Your task to perform on an android device: make emails show in primary in the gmail app Image 0: 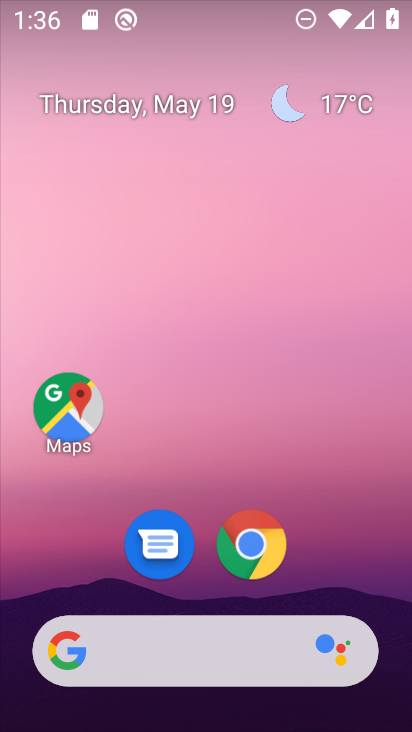
Step 0: drag from (195, 724) to (195, 169)
Your task to perform on an android device: make emails show in primary in the gmail app Image 1: 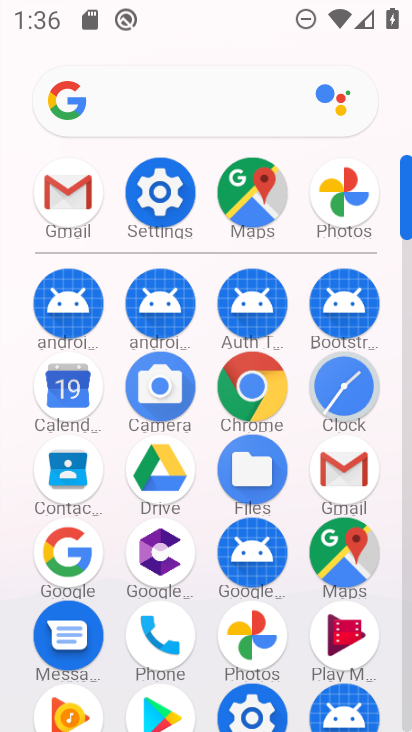
Step 1: click (336, 463)
Your task to perform on an android device: make emails show in primary in the gmail app Image 2: 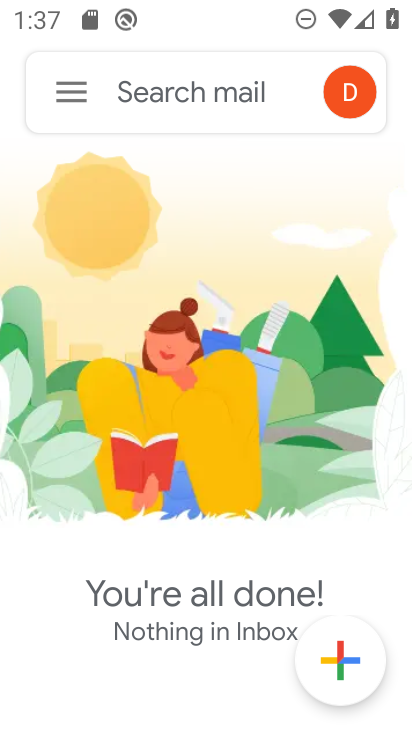
Step 2: click (70, 93)
Your task to perform on an android device: make emails show in primary in the gmail app Image 3: 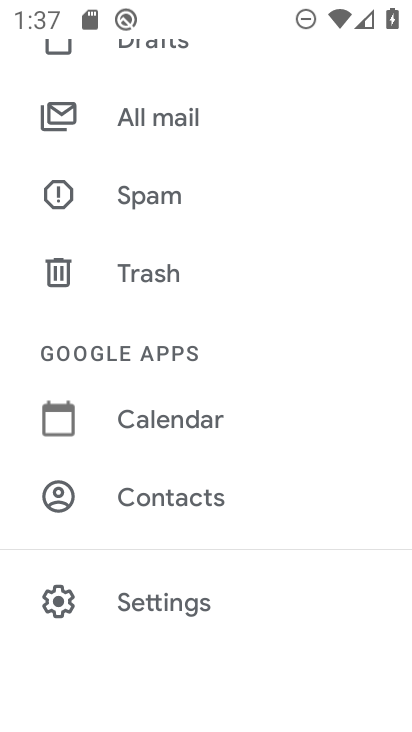
Step 3: click (181, 605)
Your task to perform on an android device: make emails show in primary in the gmail app Image 4: 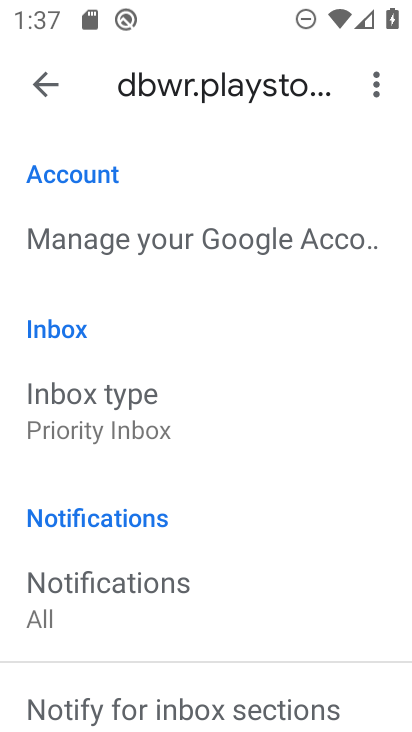
Step 4: drag from (157, 652) to (154, 406)
Your task to perform on an android device: make emails show in primary in the gmail app Image 5: 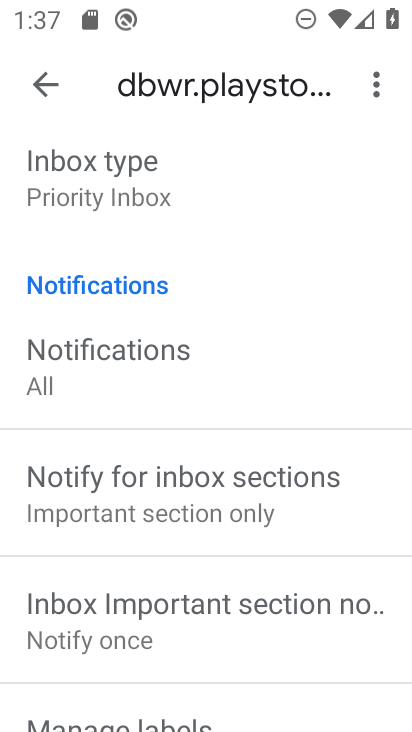
Step 5: click (85, 169)
Your task to perform on an android device: make emails show in primary in the gmail app Image 6: 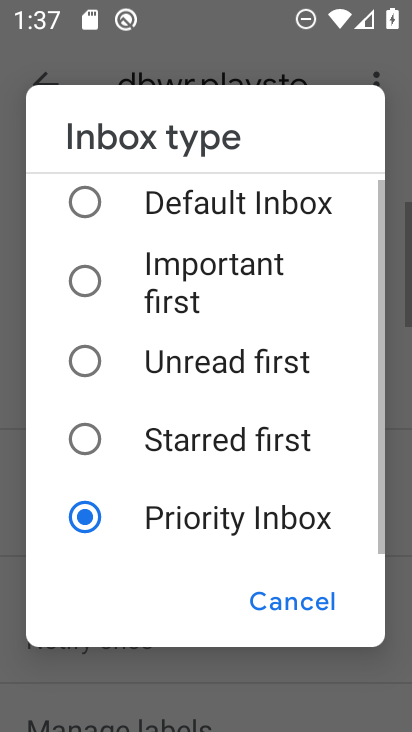
Step 6: click (80, 201)
Your task to perform on an android device: make emails show in primary in the gmail app Image 7: 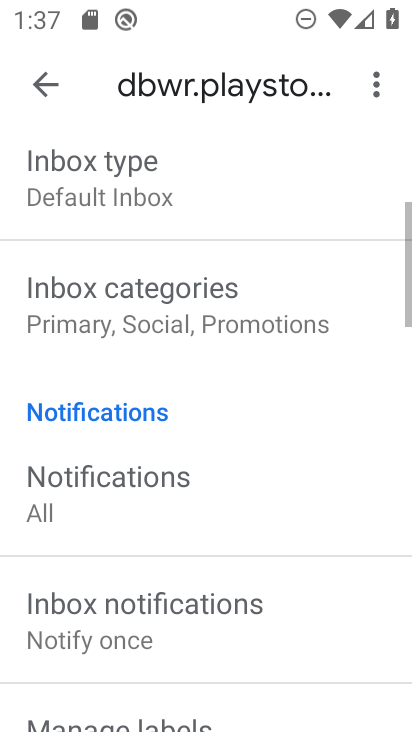
Step 7: click (120, 315)
Your task to perform on an android device: make emails show in primary in the gmail app Image 8: 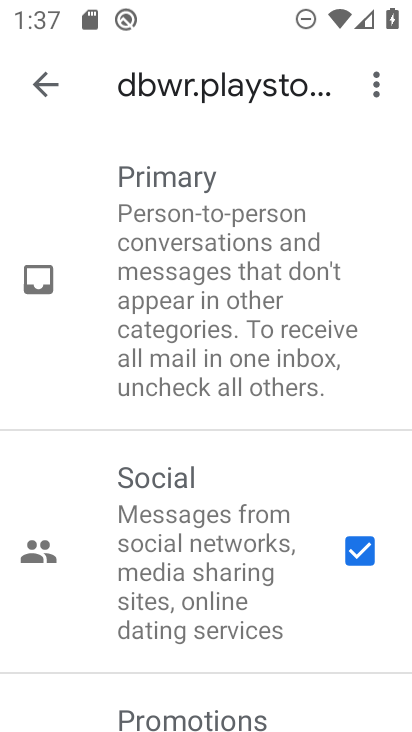
Step 8: click (342, 549)
Your task to perform on an android device: make emails show in primary in the gmail app Image 9: 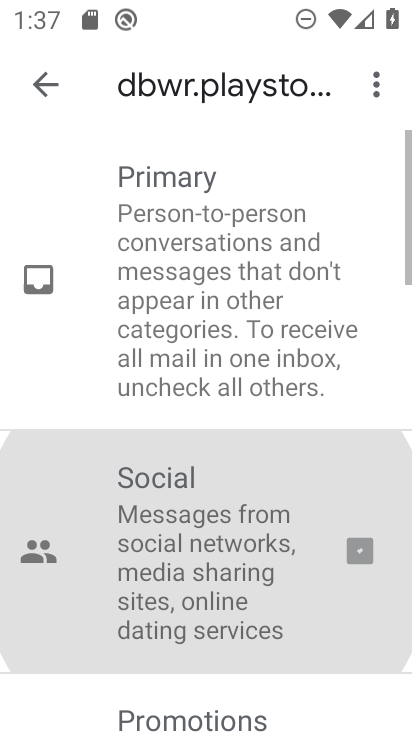
Step 9: drag from (227, 627) to (221, 246)
Your task to perform on an android device: make emails show in primary in the gmail app Image 10: 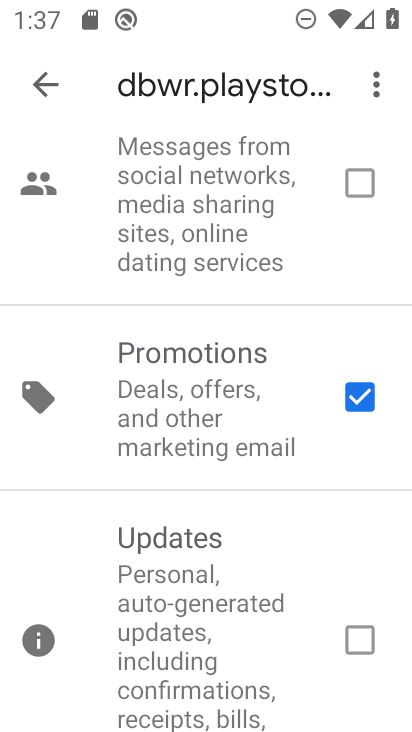
Step 10: click (359, 400)
Your task to perform on an android device: make emails show in primary in the gmail app Image 11: 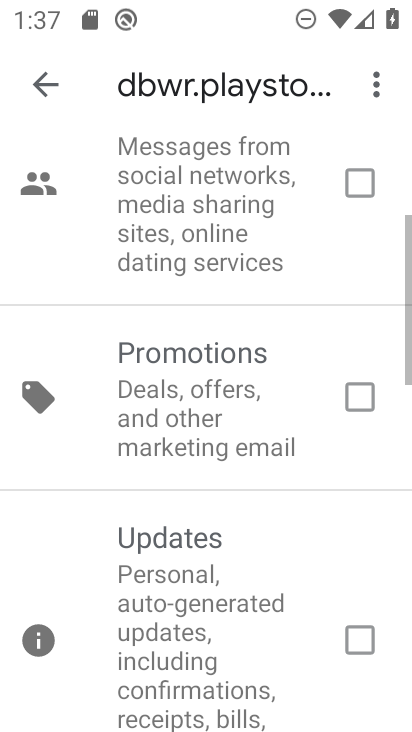
Step 11: click (41, 77)
Your task to perform on an android device: make emails show in primary in the gmail app Image 12: 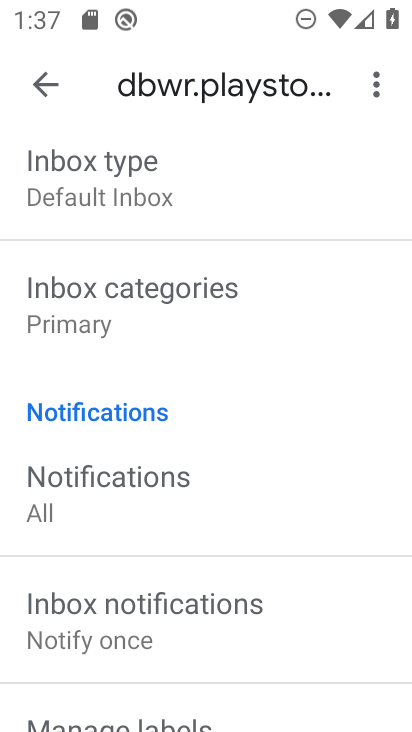
Step 12: task complete